Your task to perform on an android device: turn on the 12-hour format for clock Image 0: 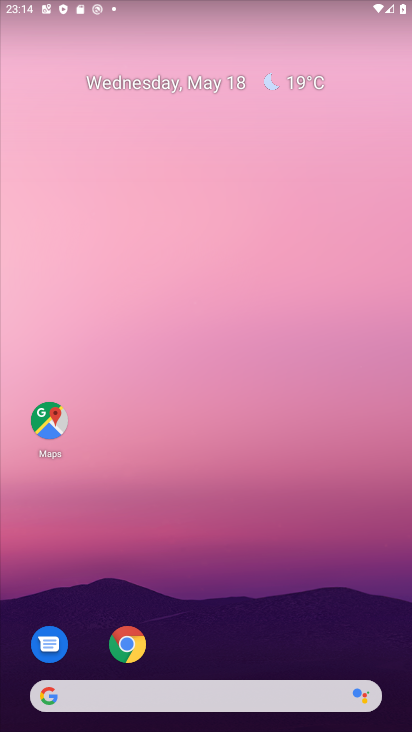
Step 0: drag from (242, 684) to (254, 256)
Your task to perform on an android device: turn on the 12-hour format for clock Image 1: 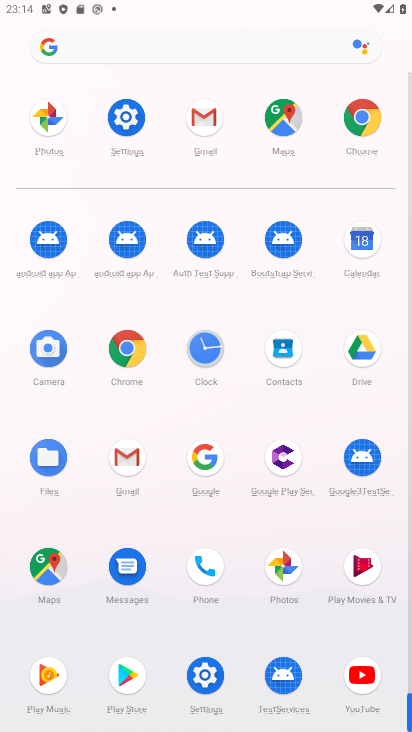
Step 1: click (178, 634)
Your task to perform on an android device: turn on the 12-hour format for clock Image 2: 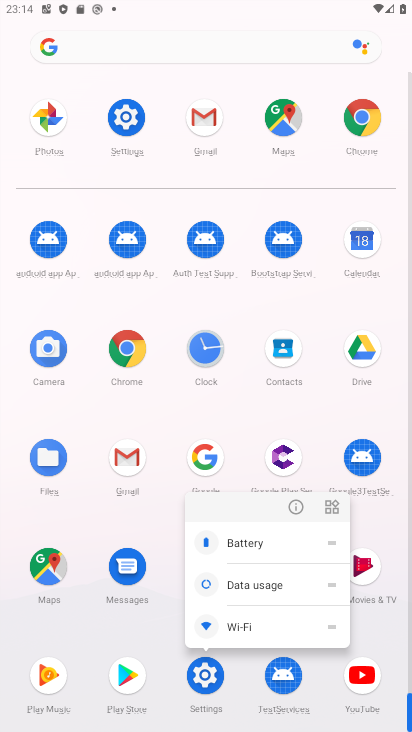
Step 2: click (178, 634)
Your task to perform on an android device: turn on the 12-hour format for clock Image 3: 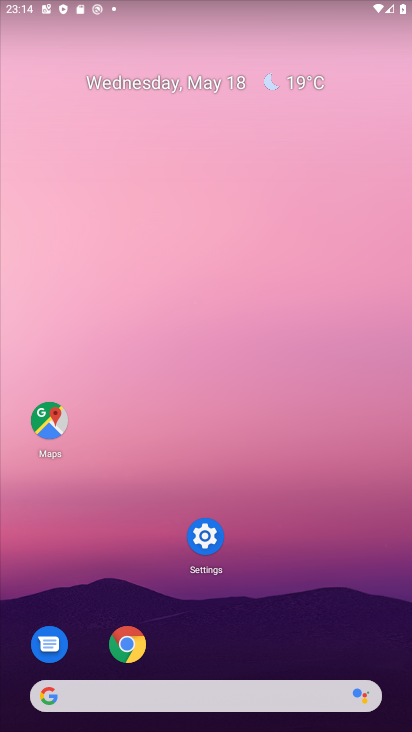
Step 3: press home button
Your task to perform on an android device: turn on the 12-hour format for clock Image 4: 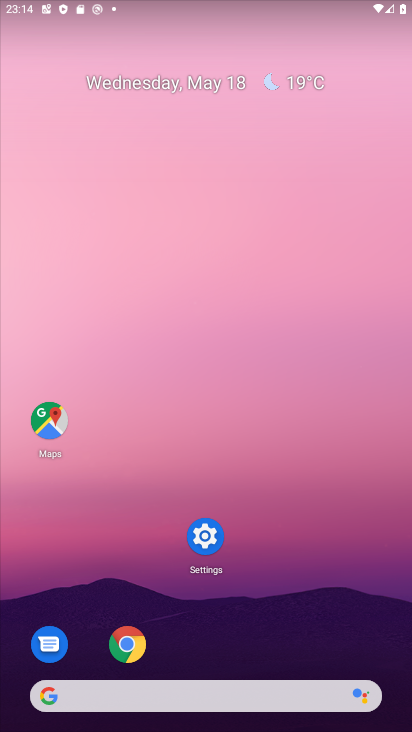
Step 4: drag from (281, 609) to (327, 67)
Your task to perform on an android device: turn on the 12-hour format for clock Image 5: 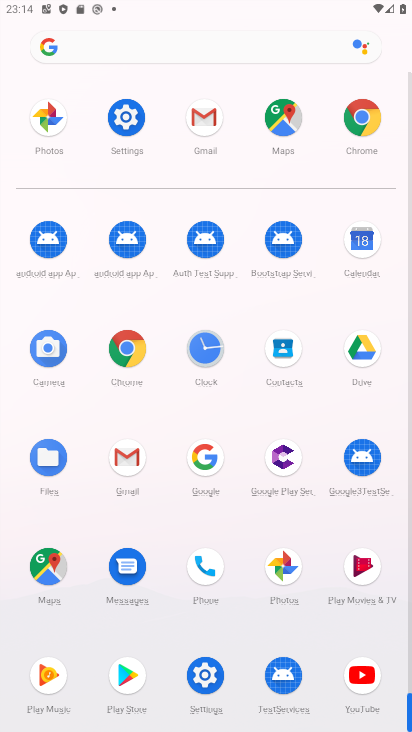
Step 5: click (211, 353)
Your task to perform on an android device: turn on the 12-hour format for clock Image 6: 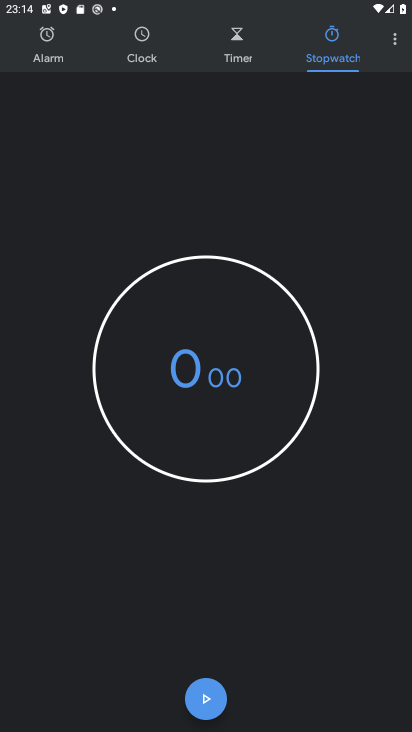
Step 6: click (388, 40)
Your task to perform on an android device: turn on the 12-hour format for clock Image 7: 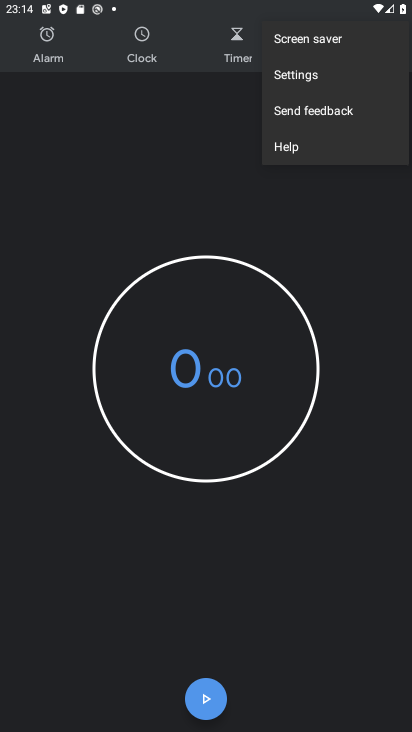
Step 7: click (298, 88)
Your task to perform on an android device: turn on the 12-hour format for clock Image 8: 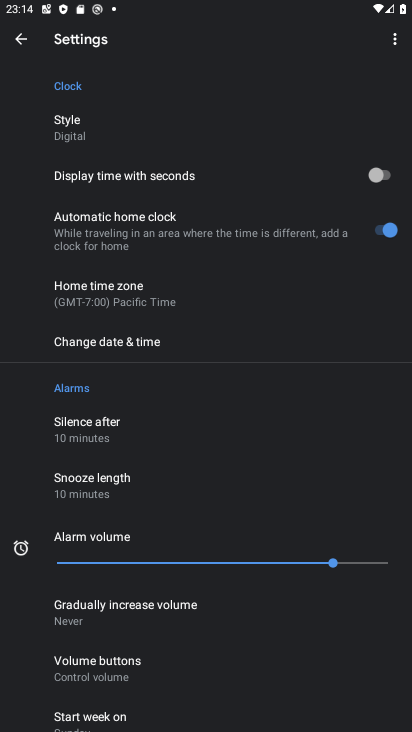
Step 8: click (124, 346)
Your task to perform on an android device: turn on the 12-hour format for clock Image 9: 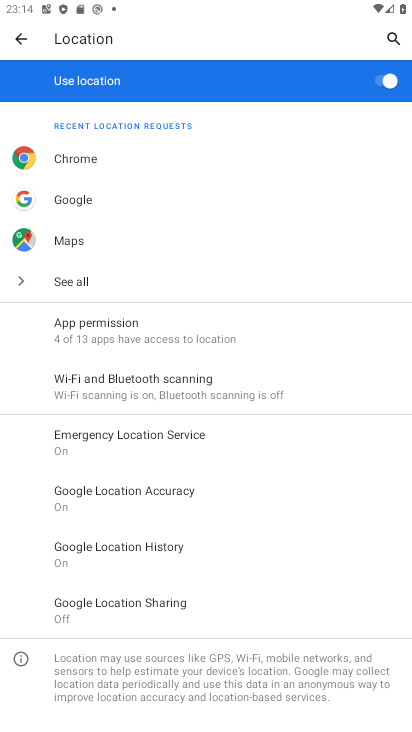
Step 9: click (22, 34)
Your task to perform on an android device: turn on the 12-hour format for clock Image 10: 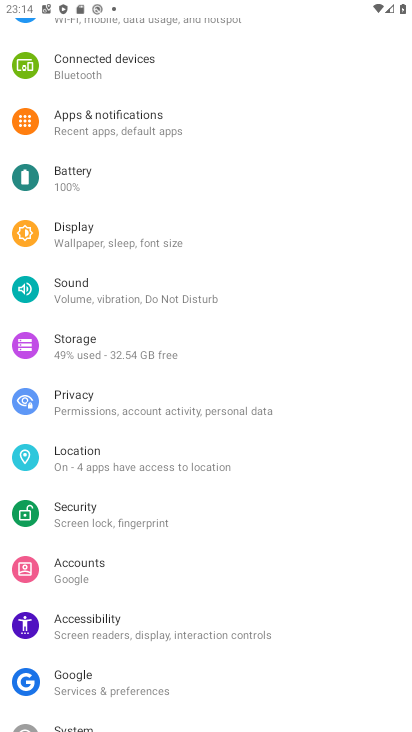
Step 10: press back button
Your task to perform on an android device: turn on the 12-hour format for clock Image 11: 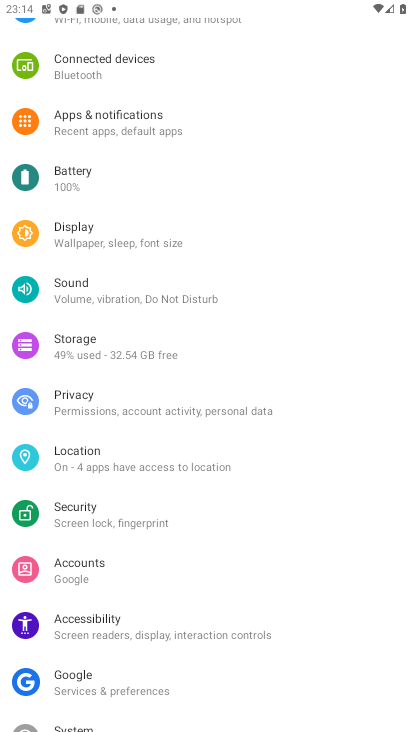
Step 11: press back button
Your task to perform on an android device: turn on the 12-hour format for clock Image 12: 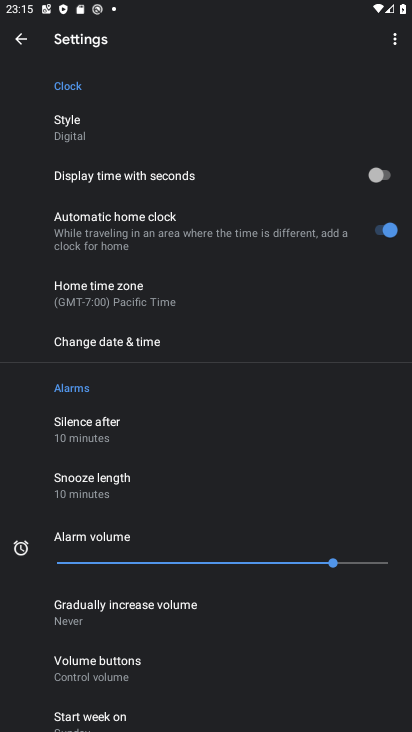
Step 12: click (174, 346)
Your task to perform on an android device: turn on the 12-hour format for clock Image 13: 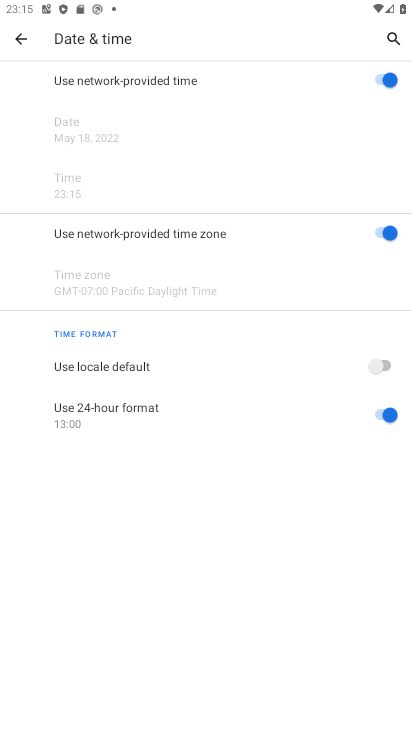
Step 13: click (380, 374)
Your task to perform on an android device: turn on the 12-hour format for clock Image 14: 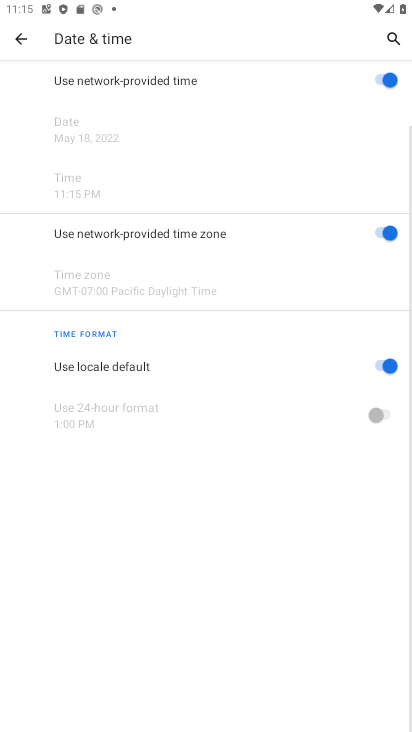
Step 14: task complete